Your task to perform on an android device: Open calendar and show me the fourth week of next month Image 0: 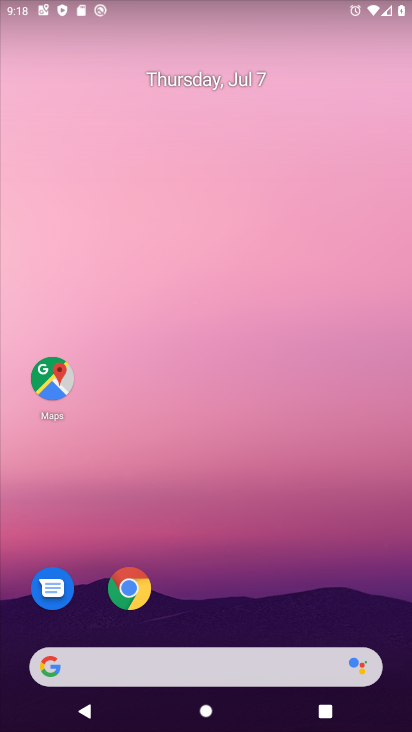
Step 0: press home button
Your task to perform on an android device: Open calendar and show me the fourth week of next month Image 1: 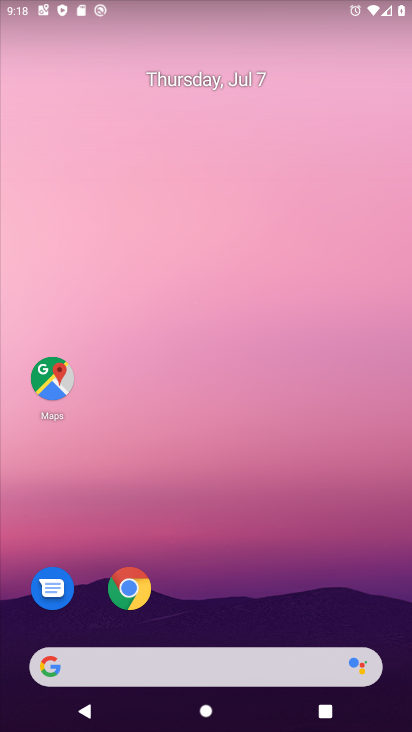
Step 1: drag from (205, 625) to (203, 85)
Your task to perform on an android device: Open calendar and show me the fourth week of next month Image 2: 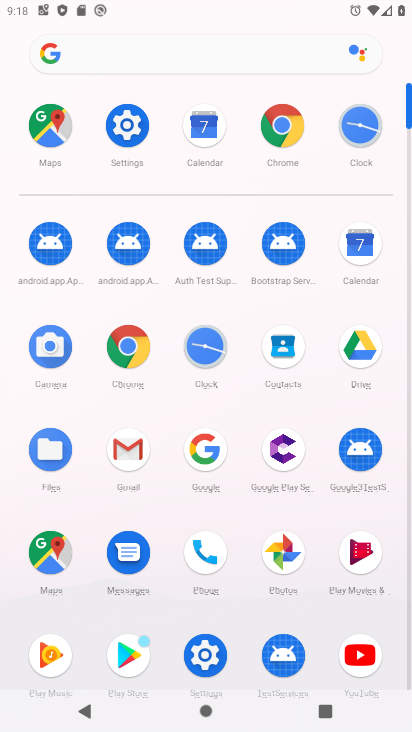
Step 2: click (364, 241)
Your task to perform on an android device: Open calendar and show me the fourth week of next month Image 3: 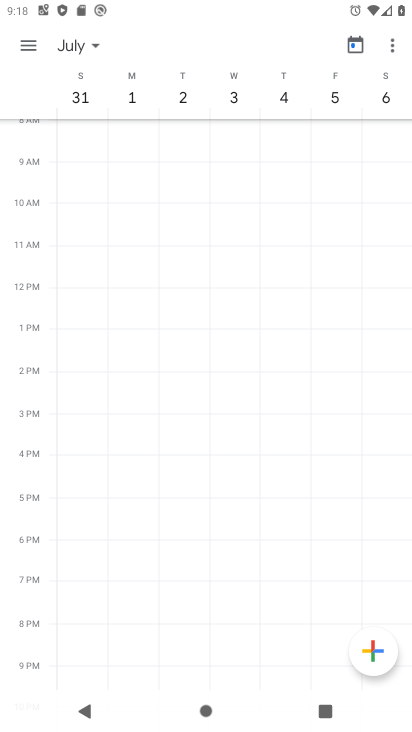
Step 3: click (94, 40)
Your task to perform on an android device: Open calendar and show me the fourth week of next month Image 4: 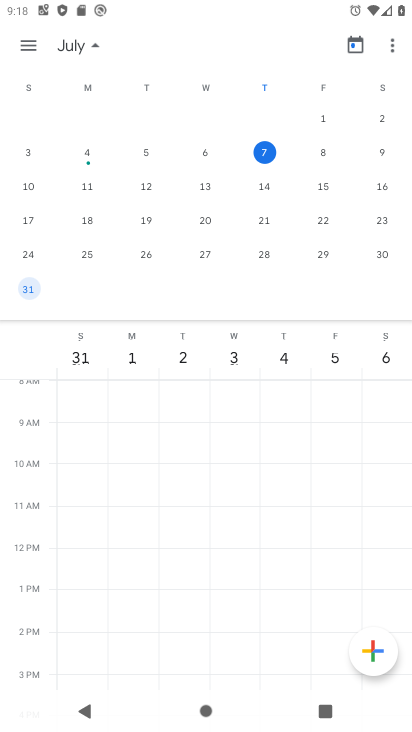
Step 4: drag from (367, 179) to (3, 169)
Your task to perform on an android device: Open calendar and show me the fourth week of next month Image 5: 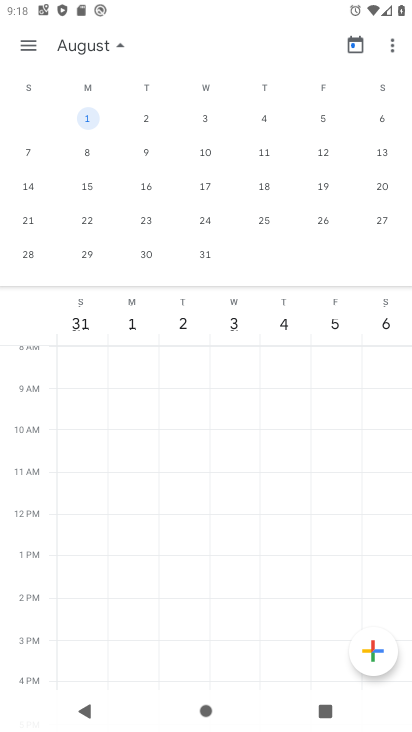
Step 5: drag from (355, 196) to (27, 208)
Your task to perform on an android device: Open calendar and show me the fourth week of next month Image 6: 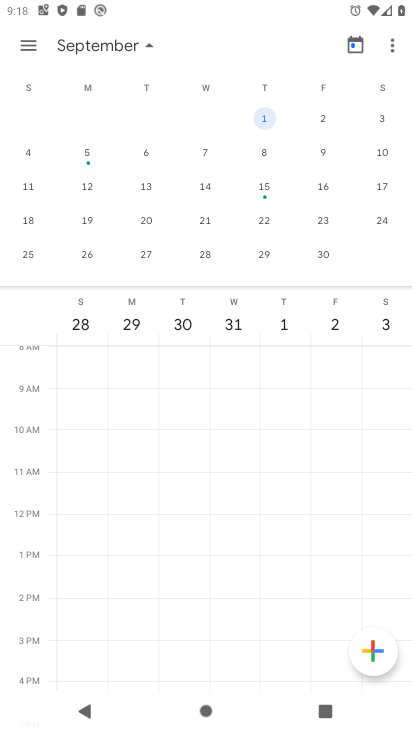
Step 6: drag from (12, 196) to (268, 200)
Your task to perform on an android device: Open calendar and show me the fourth week of next month Image 7: 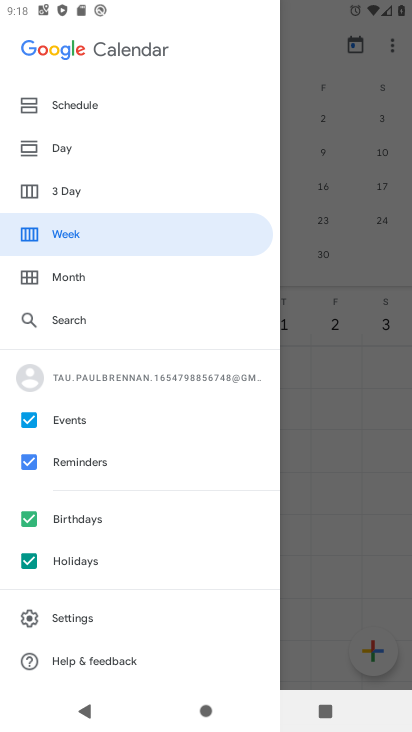
Step 7: click (328, 193)
Your task to perform on an android device: Open calendar and show me the fourth week of next month Image 8: 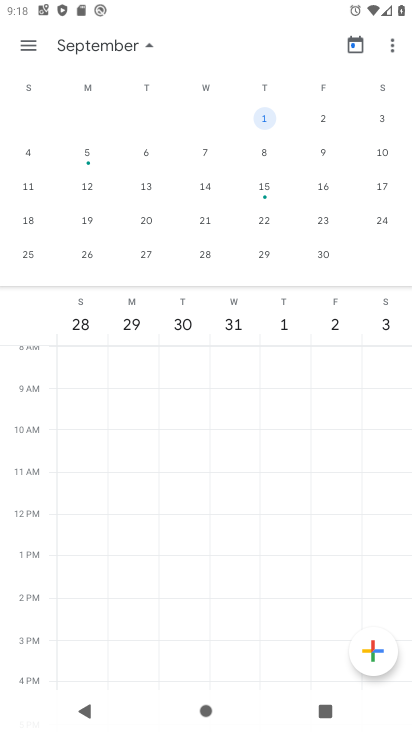
Step 8: drag from (123, 209) to (408, 210)
Your task to perform on an android device: Open calendar and show me the fourth week of next month Image 9: 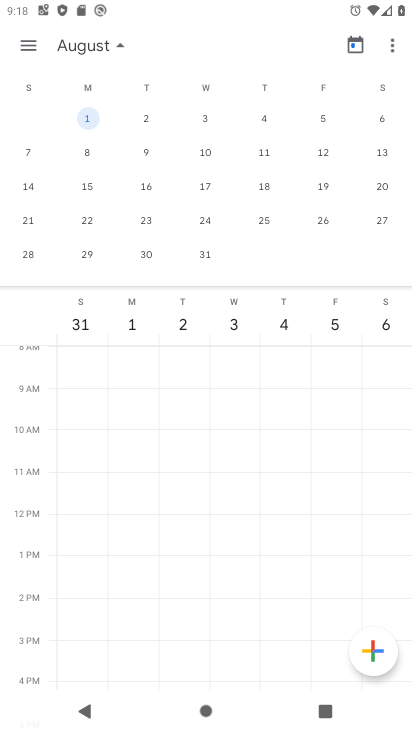
Step 9: click (30, 222)
Your task to perform on an android device: Open calendar and show me the fourth week of next month Image 10: 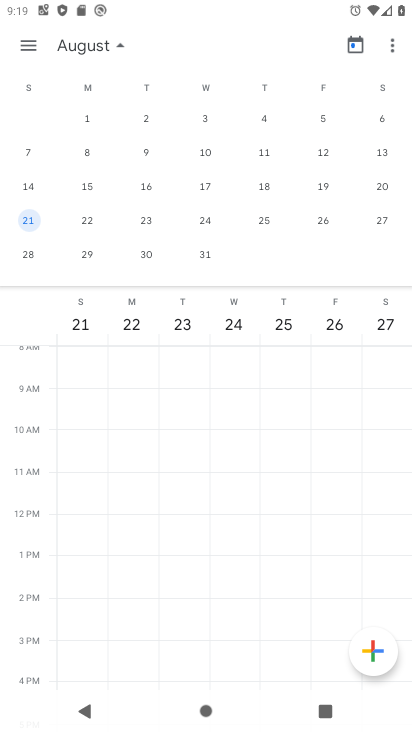
Step 10: click (113, 47)
Your task to perform on an android device: Open calendar and show me the fourth week of next month Image 11: 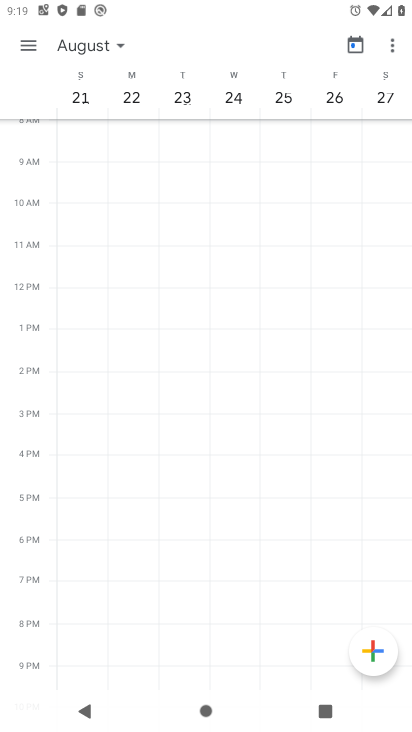
Step 11: task complete